Your task to perform on an android device: Open the web browser Image 0: 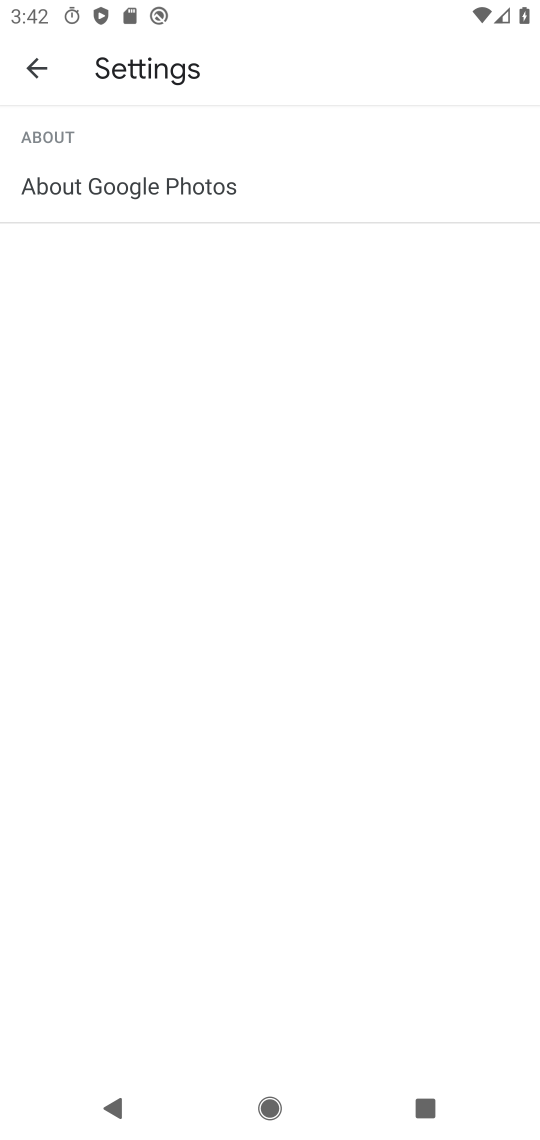
Step 0: press home button
Your task to perform on an android device: Open the web browser Image 1: 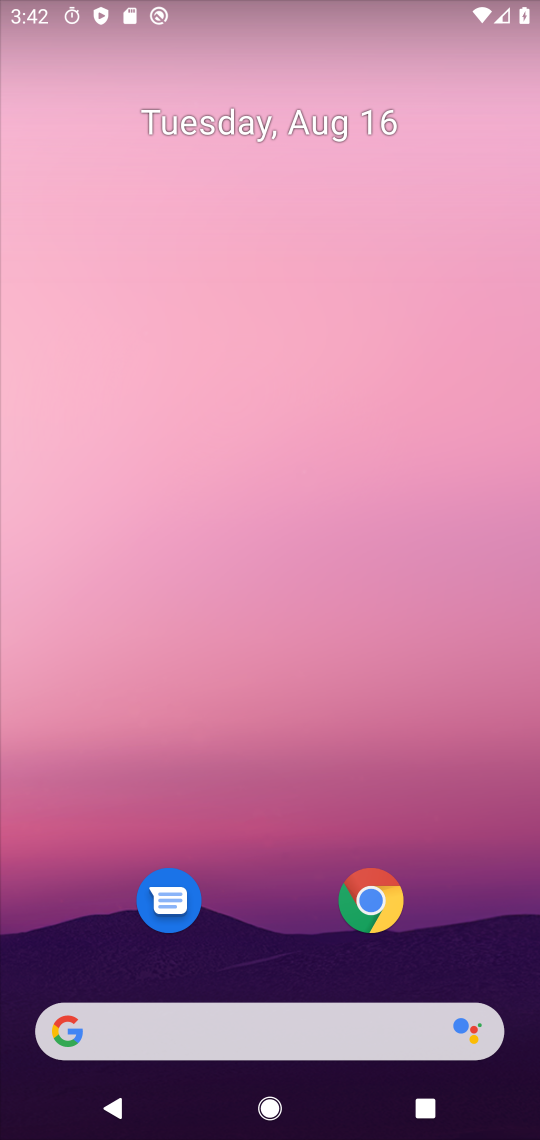
Step 1: click (372, 891)
Your task to perform on an android device: Open the web browser Image 2: 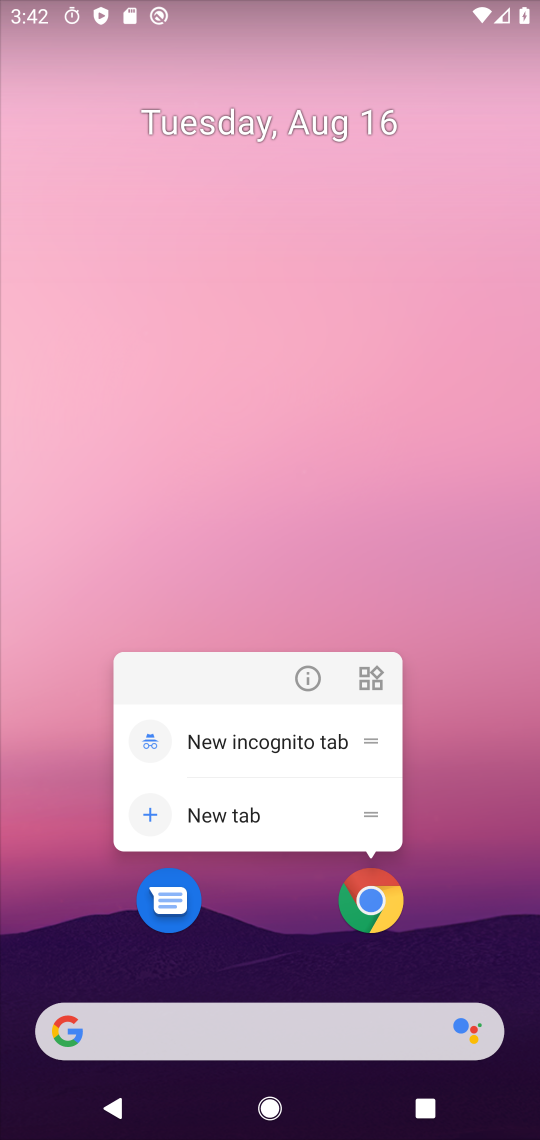
Step 2: click (372, 891)
Your task to perform on an android device: Open the web browser Image 3: 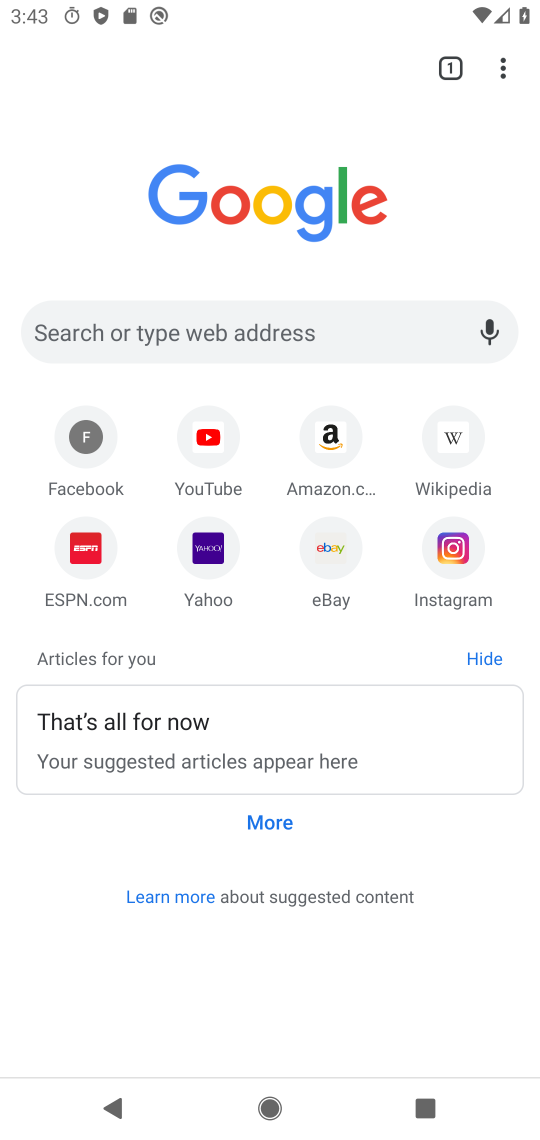
Step 3: task complete